Your task to perform on an android device: Search for "bose soundlink mini" on bestbuy.com, select the first entry, add it to the cart, then select checkout. Image 0: 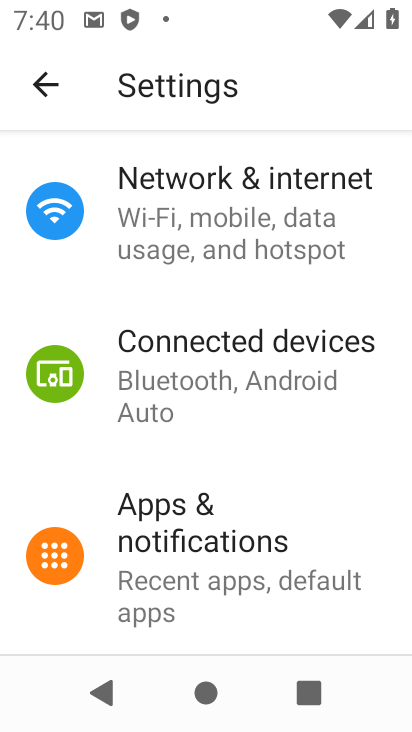
Step 0: press home button
Your task to perform on an android device: Search for "bose soundlink mini" on bestbuy.com, select the first entry, add it to the cart, then select checkout. Image 1: 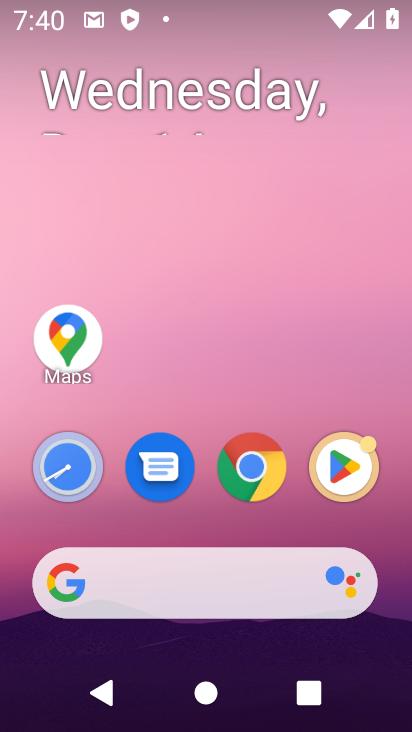
Step 1: click (168, 579)
Your task to perform on an android device: Search for "bose soundlink mini" on bestbuy.com, select the first entry, add it to the cart, then select checkout. Image 2: 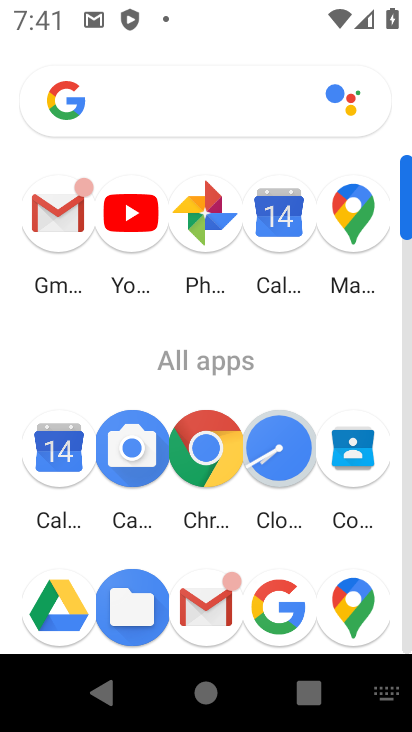
Step 2: click (208, 465)
Your task to perform on an android device: Search for "bose soundlink mini" on bestbuy.com, select the first entry, add it to the cart, then select checkout. Image 3: 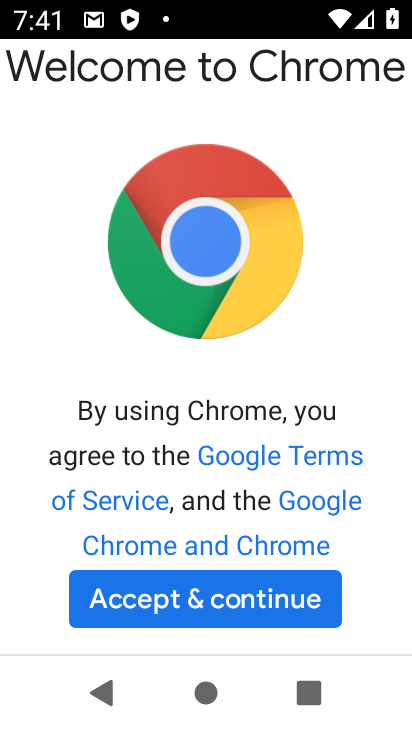
Step 3: click (224, 588)
Your task to perform on an android device: Search for "bose soundlink mini" on bestbuy.com, select the first entry, add it to the cart, then select checkout. Image 4: 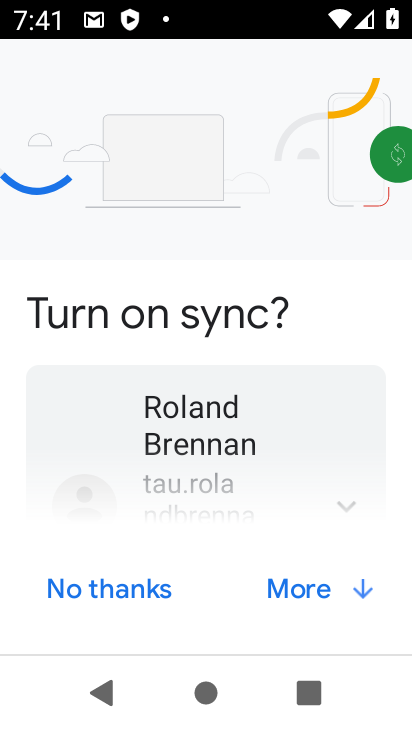
Step 4: click (117, 579)
Your task to perform on an android device: Search for "bose soundlink mini" on bestbuy.com, select the first entry, add it to the cart, then select checkout. Image 5: 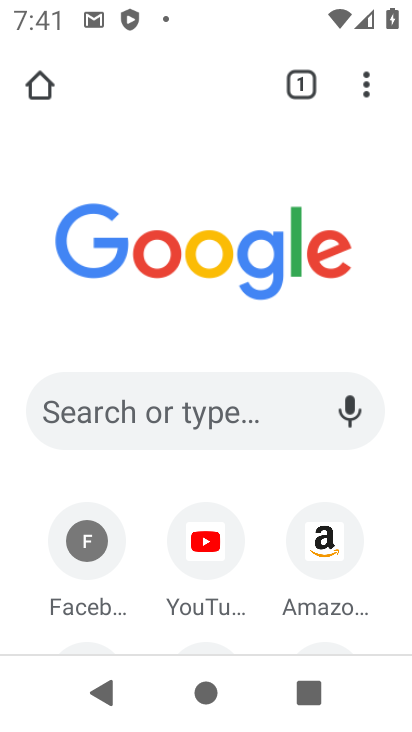
Step 5: click (86, 422)
Your task to perform on an android device: Search for "bose soundlink mini" on bestbuy.com, select the first entry, add it to the cart, then select checkout. Image 6: 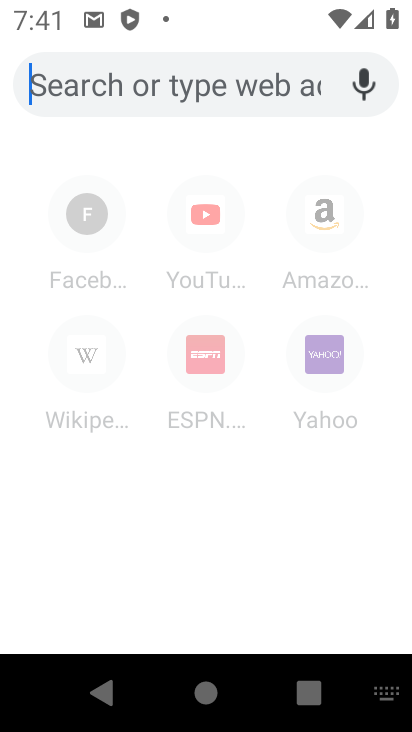
Step 6: type "bose soundlink mini"
Your task to perform on an android device: Search for "bose soundlink mini" on bestbuy.com, select the first entry, add it to the cart, then select checkout. Image 7: 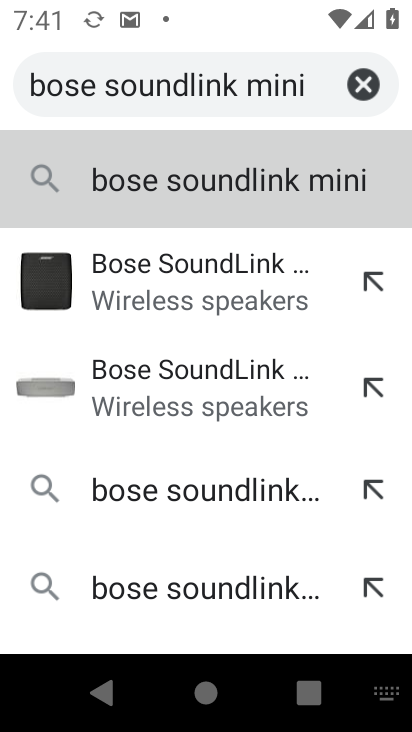
Step 7: click (112, 181)
Your task to perform on an android device: Search for "bose soundlink mini" on bestbuy.com, select the first entry, add it to the cart, then select checkout. Image 8: 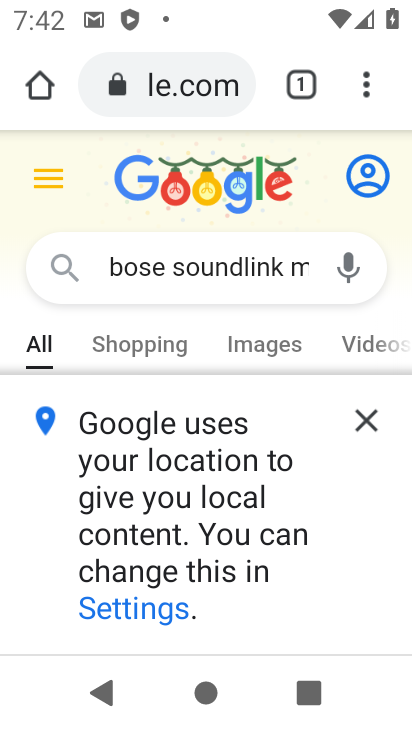
Step 8: click (380, 429)
Your task to perform on an android device: Search for "bose soundlink mini" on bestbuy.com, select the first entry, add it to the cart, then select checkout. Image 9: 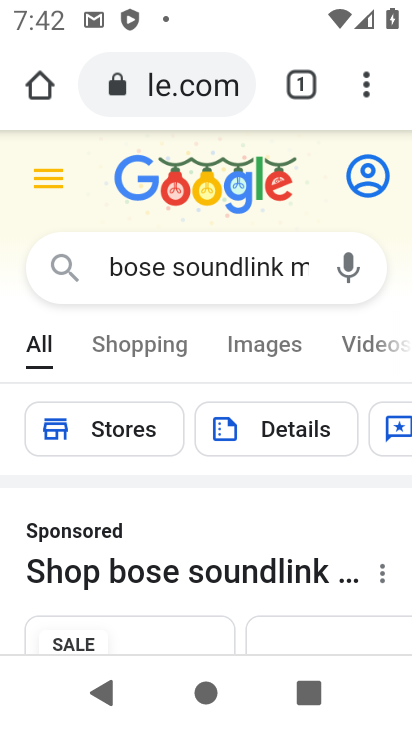
Step 9: drag from (153, 556) to (129, 171)
Your task to perform on an android device: Search for "bose soundlink mini" on bestbuy.com, select the first entry, add it to the cart, then select checkout. Image 10: 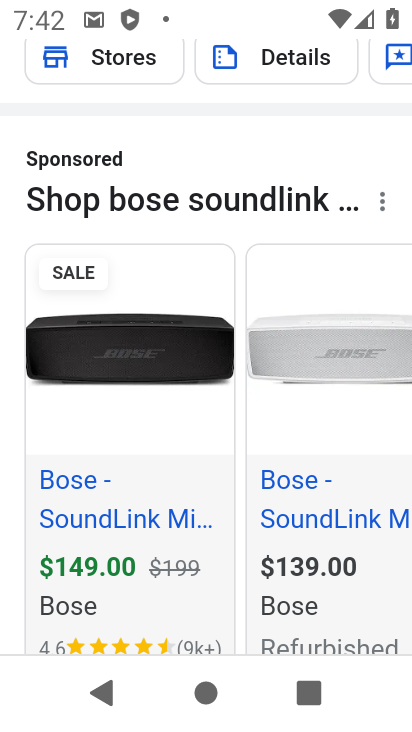
Step 10: click (260, 491)
Your task to perform on an android device: Search for "bose soundlink mini" on bestbuy.com, select the first entry, add it to the cart, then select checkout. Image 11: 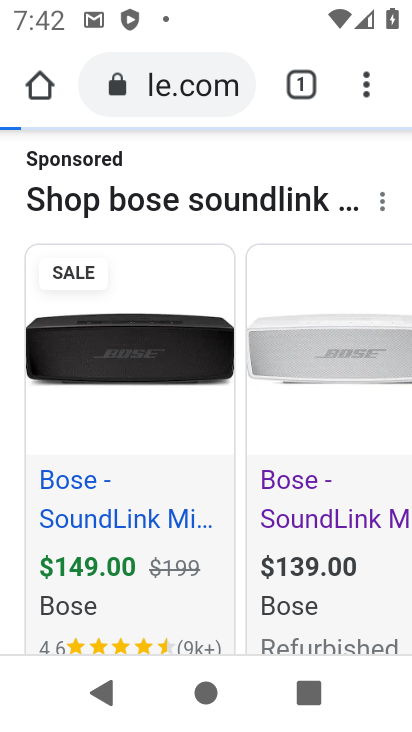
Step 11: task complete